Your task to perform on an android device: Open privacy settings Image 0: 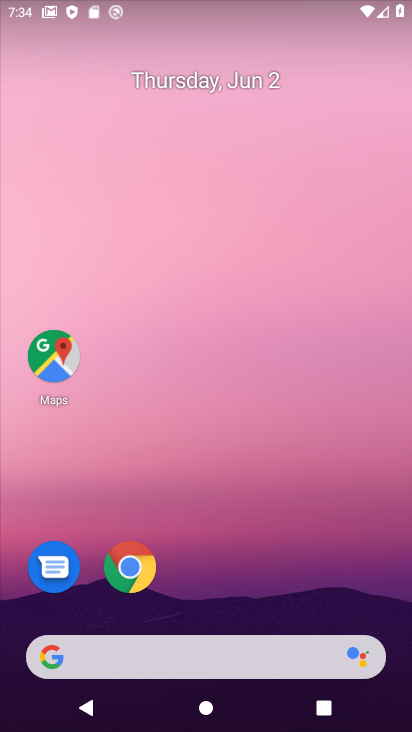
Step 0: drag from (258, 569) to (221, 93)
Your task to perform on an android device: Open privacy settings Image 1: 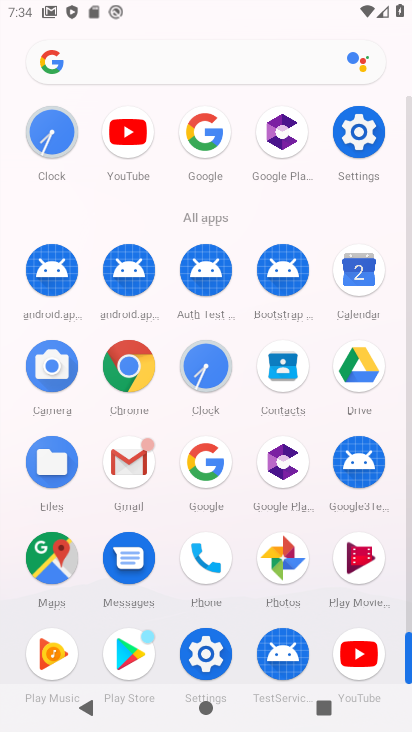
Step 1: click (361, 132)
Your task to perform on an android device: Open privacy settings Image 2: 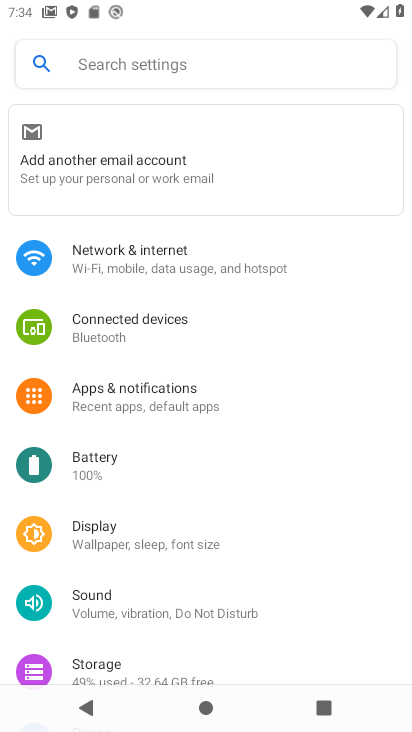
Step 2: drag from (141, 477) to (173, 389)
Your task to perform on an android device: Open privacy settings Image 3: 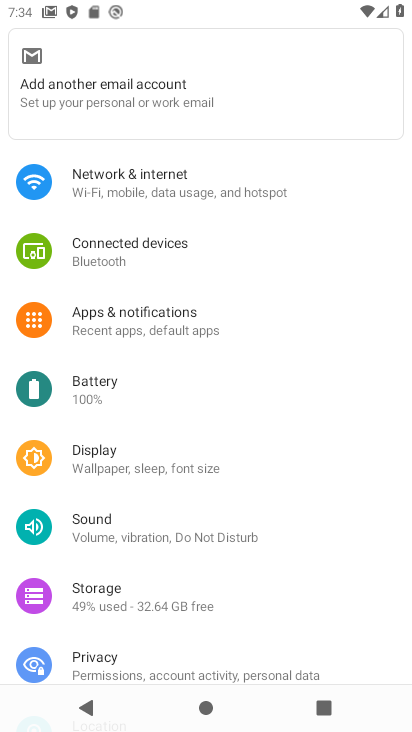
Step 3: drag from (148, 505) to (235, 400)
Your task to perform on an android device: Open privacy settings Image 4: 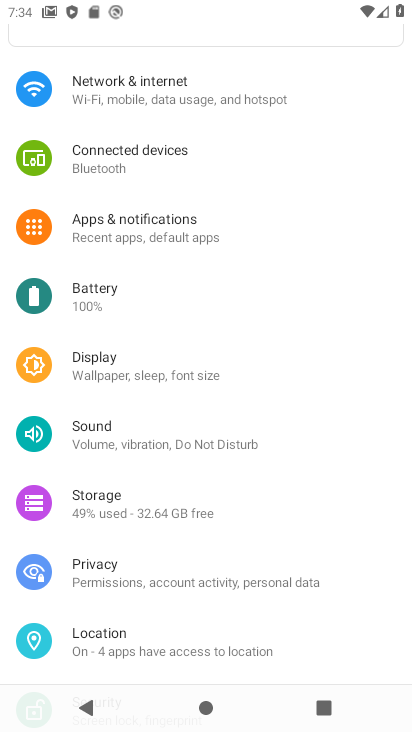
Step 4: click (136, 570)
Your task to perform on an android device: Open privacy settings Image 5: 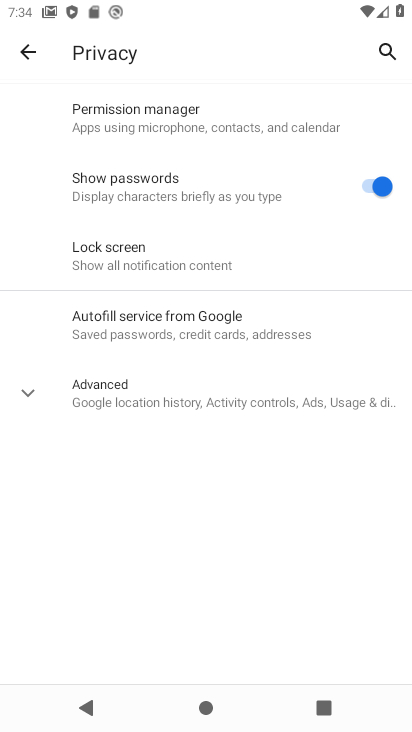
Step 5: task complete